Your task to perform on an android device: open chrome privacy settings Image 0: 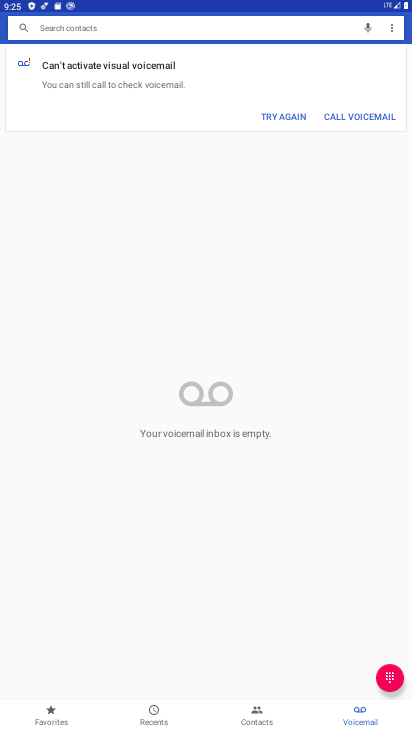
Step 0: press home button
Your task to perform on an android device: open chrome privacy settings Image 1: 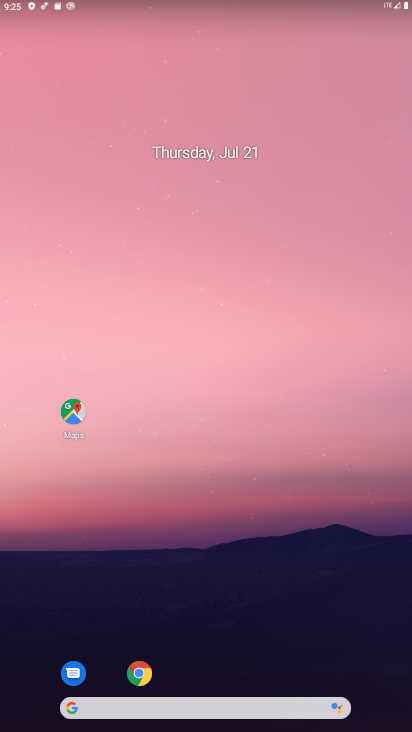
Step 1: click (142, 673)
Your task to perform on an android device: open chrome privacy settings Image 2: 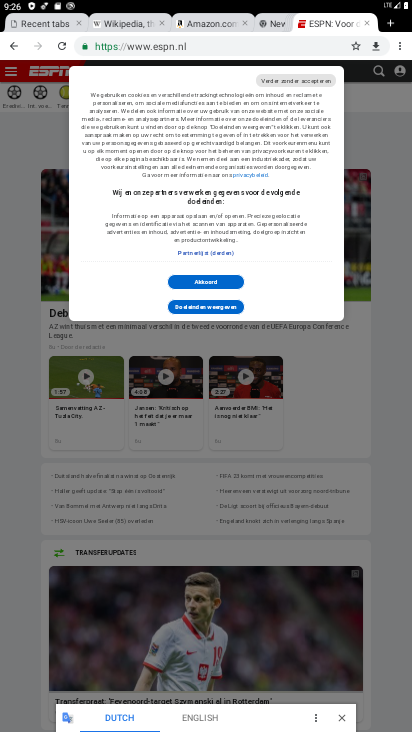
Step 2: click (398, 45)
Your task to perform on an android device: open chrome privacy settings Image 3: 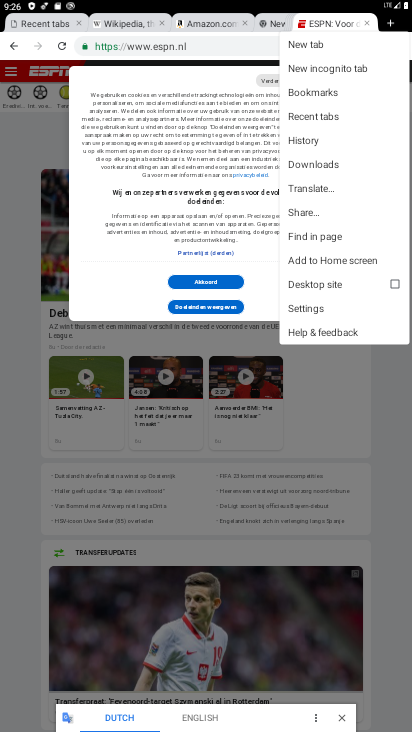
Step 3: click (305, 305)
Your task to perform on an android device: open chrome privacy settings Image 4: 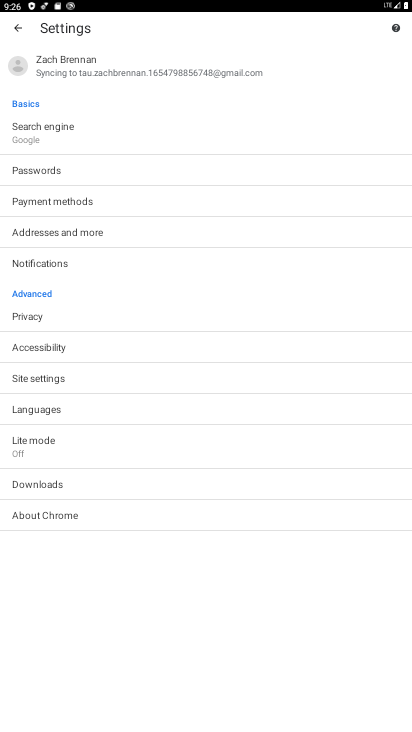
Step 4: click (51, 325)
Your task to perform on an android device: open chrome privacy settings Image 5: 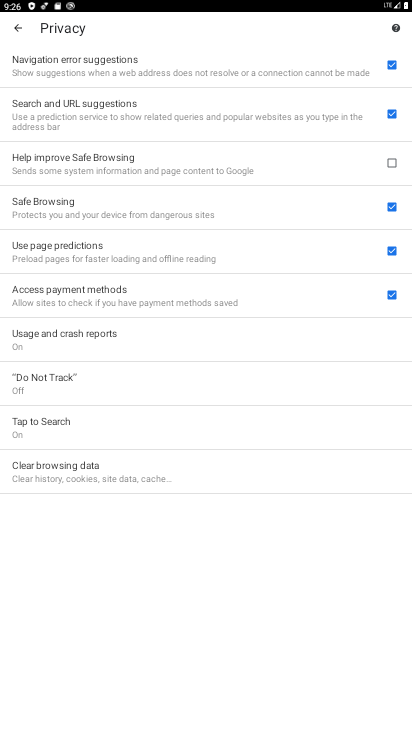
Step 5: task complete